Your task to perform on an android device: change notification settings in the gmail app Image 0: 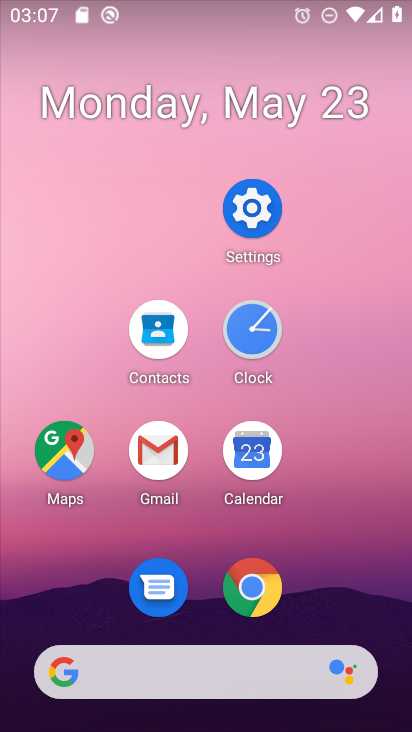
Step 0: click (192, 436)
Your task to perform on an android device: change notification settings in the gmail app Image 1: 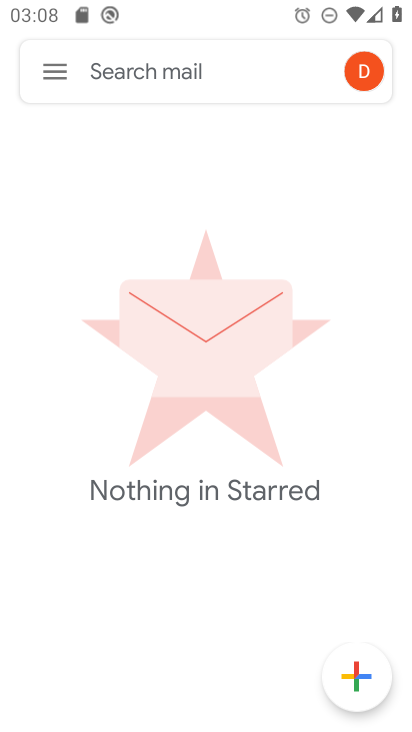
Step 1: click (51, 85)
Your task to perform on an android device: change notification settings in the gmail app Image 2: 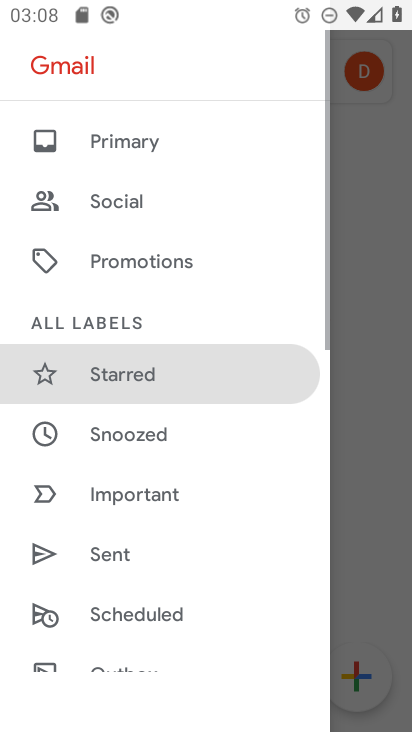
Step 2: drag from (140, 570) to (166, 281)
Your task to perform on an android device: change notification settings in the gmail app Image 3: 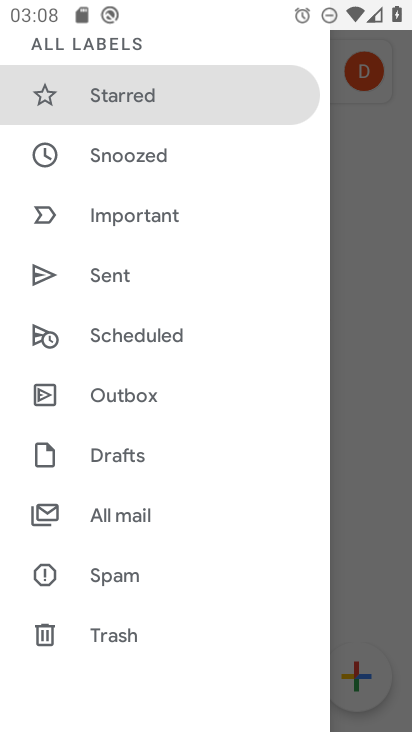
Step 3: drag from (190, 610) to (198, 360)
Your task to perform on an android device: change notification settings in the gmail app Image 4: 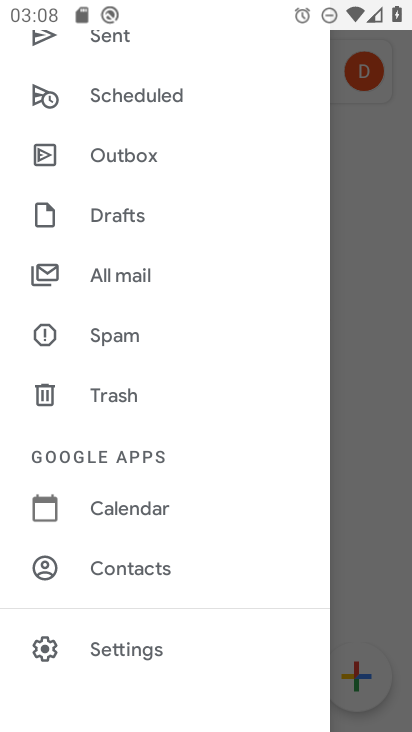
Step 4: click (129, 653)
Your task to perform on an android device: change notification settings in the gmail app Image 5: 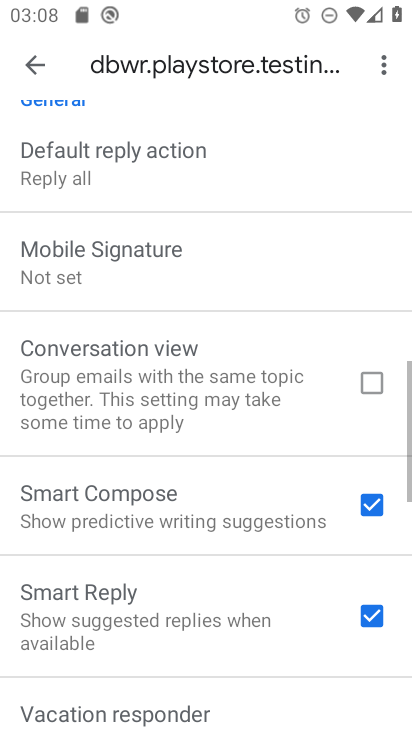
Step 5: task complete